Your task to perform on an android device: turn off wifi Image 0: 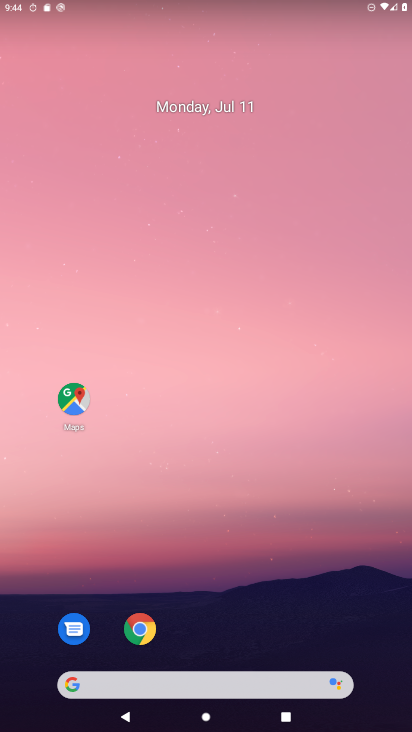
Step 0: drag from (208, 366) to (237, 689)
Your task to perform on an android device: turn off wifi Image 1: 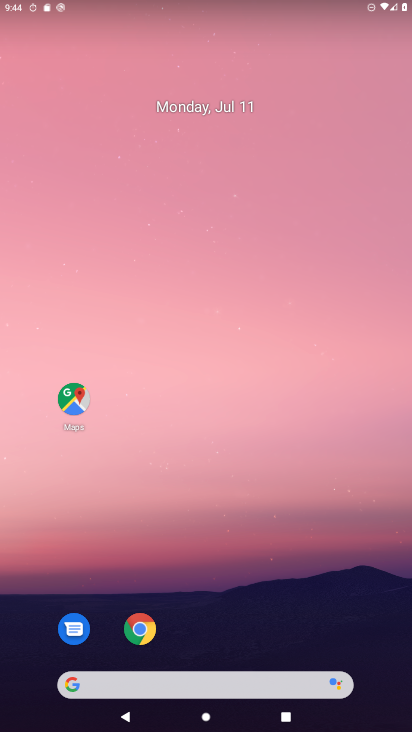
Step 1: drag from (105, 11) to (171, 554)
Your task to perform on an android device: turn off wifi Image 2: 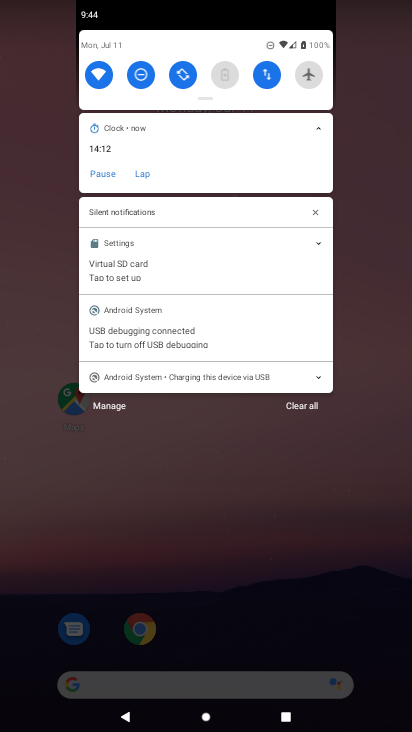
Step 2: click (101, 65)
Your task to perform on an android device: turn off wifi Image 3: 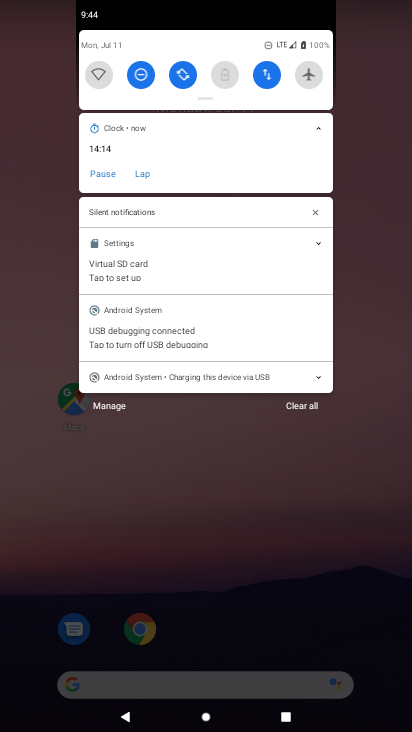
Step 3: task complete